Your task to perform on an android device: refresh tabs in the chrome app Image 0: 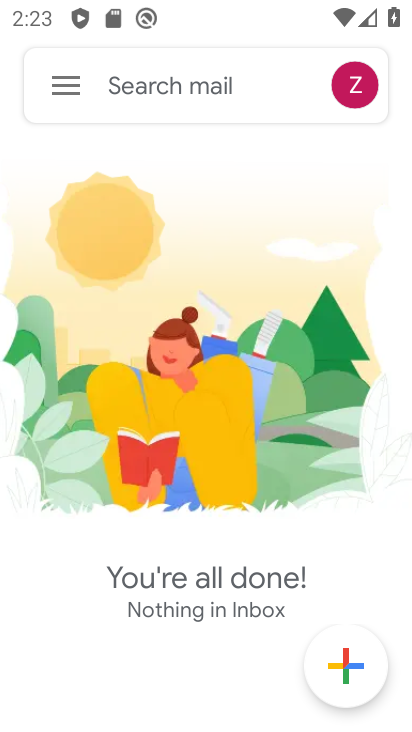
Step 0: press back button
Your task to perform on an android device: refresh tabs in the chrome app Image 1: 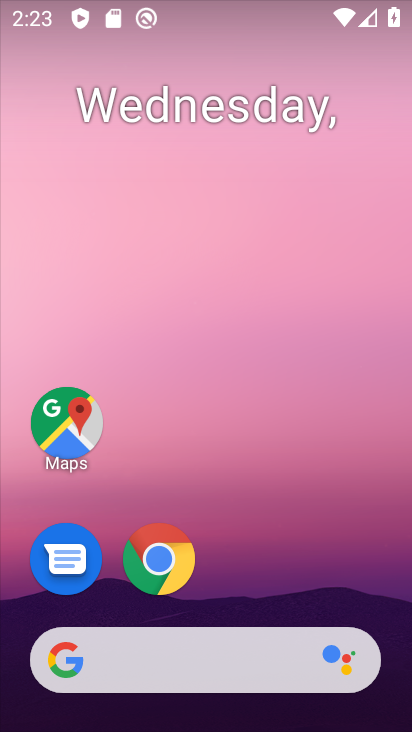
Step 1: click (167, 556)
Your task to perform on an android device: refresh tabs in the chrome app Image 2: 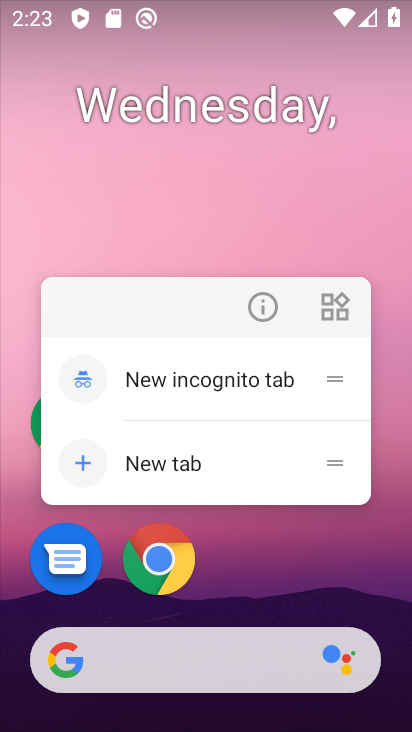
Step 2: click (155, 558)
Your task to perform on an android device: refresh tabs in the chrome app Image 3: 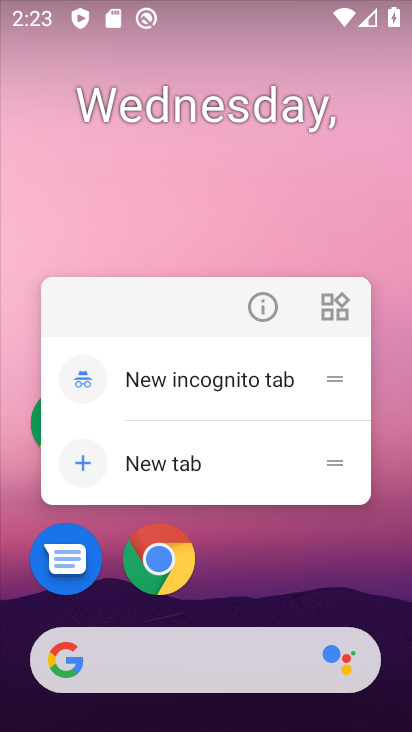
Step 3: click (155, 558)
Your task to perform on an android device: refresh tabs in the chrome app Image 4: 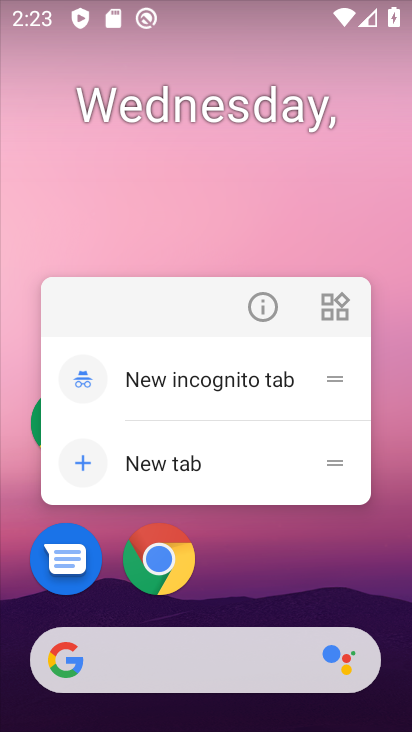
Step 4: click (155, 558)
Your task to perform on an android device: refresh tabs in the chrome app Image 5: 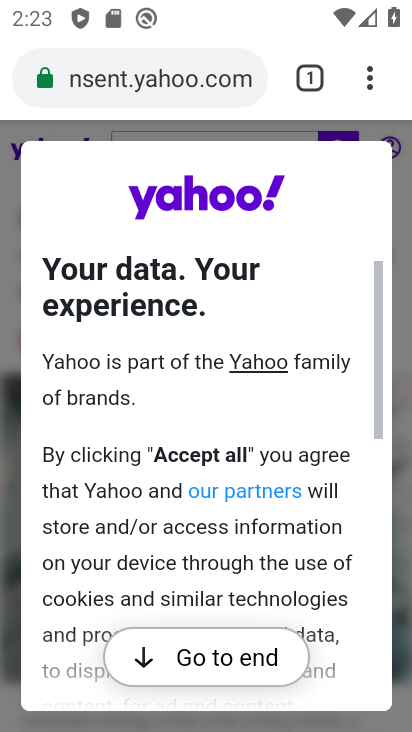
Step 5: click (367, 80)
Your task to perform on an android device: refresh tabs in the chrome app Image 6: 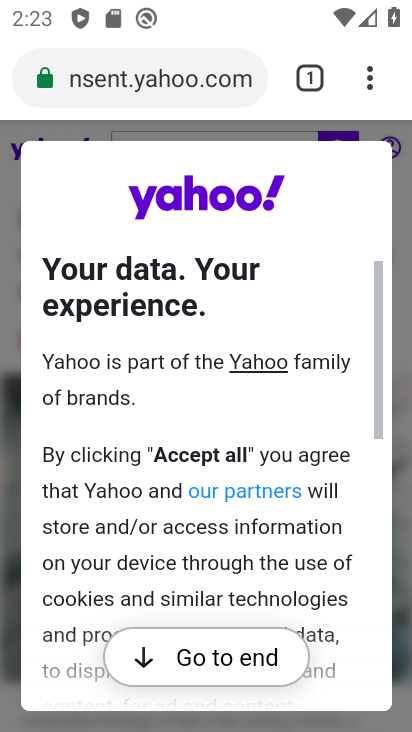
Step 6: task complete